Your task to perform on an android device: see tabs open on other devices in the chrome app Image 0: 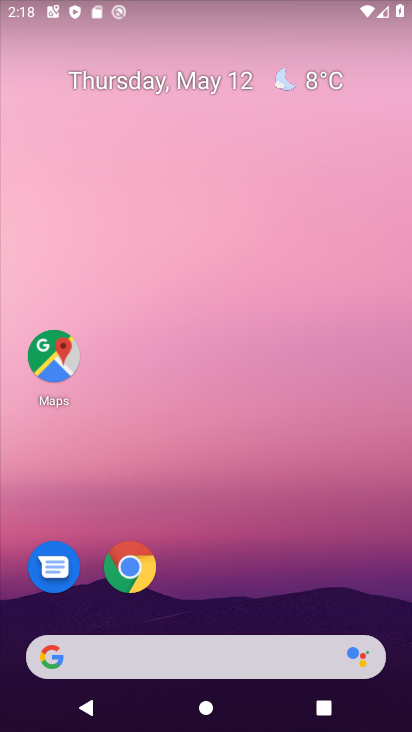
Step 0: click (123, 567)
Your task to perform on an android device: see tabs open on other devices in the chrome app Image 1: 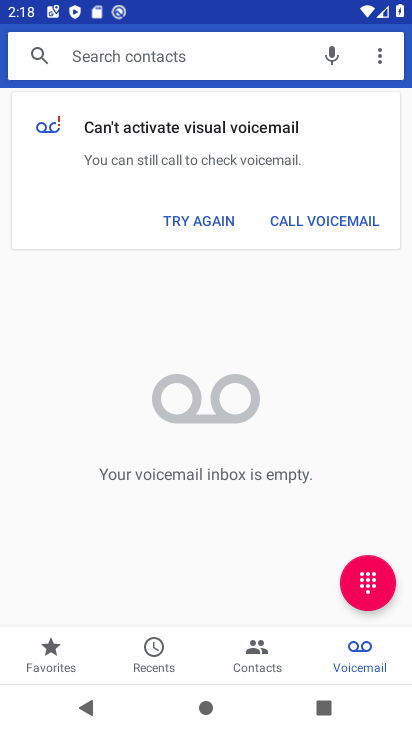
Step 1: press home button
Your task to perform on an android device: see tabs open on other devices in the chrome app Image 2: 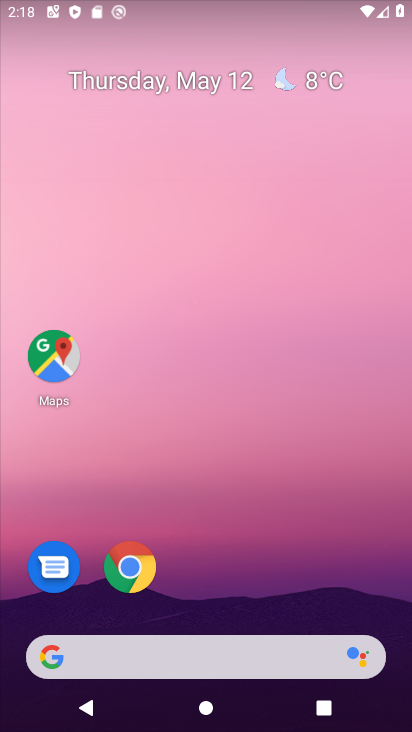
Step 2: drag from (199, 623) to (252, 77)
Your task to perform on an android device: see tabs open on other devices in the chrome app Image 3: 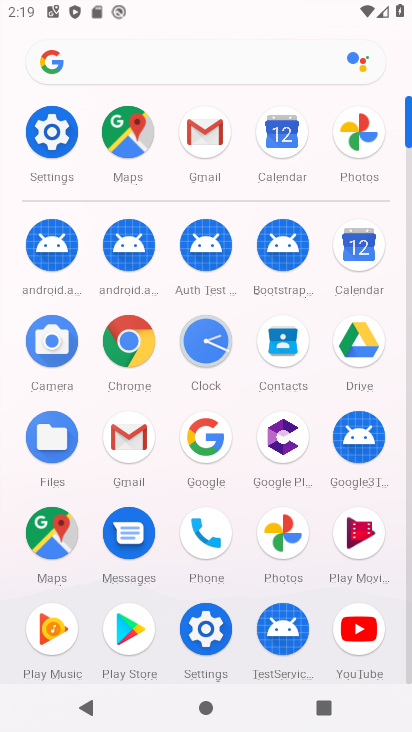
Step 3: click (131, 339)
Your task to perform on an android device: see tabs open on other devices in the chrome app Image 4: 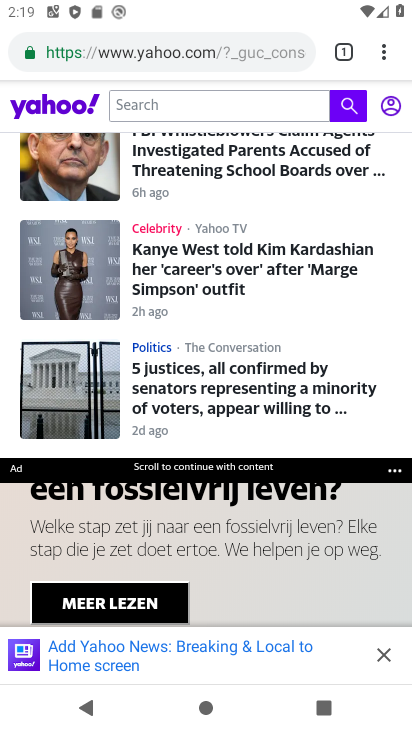
Step 4: click (389, 53)
Your task to perform on an android device: see tabs open on other devices in the chrome app Image 5: 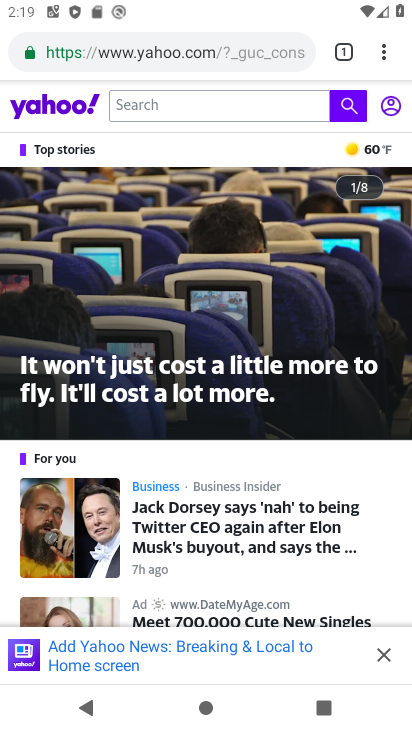
Step 5: click (377, 48)
Your task to perform on an android device: see tabs open on other devices in the chrome app Image 6: 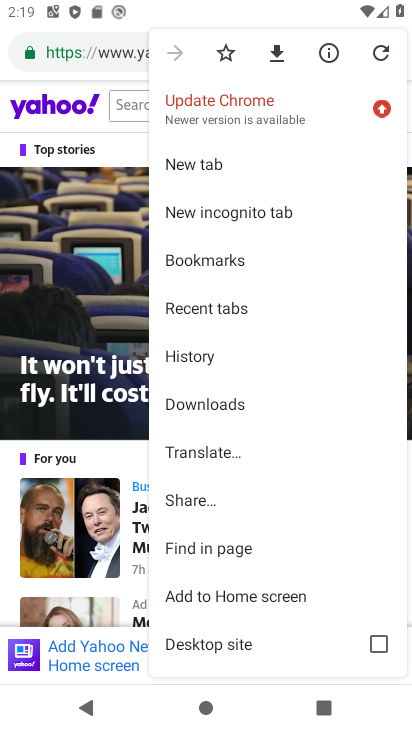
Step 6: click (235, 309)
Your task to perform on an android device: see tabs open on other devices in the chrome app Image 7: 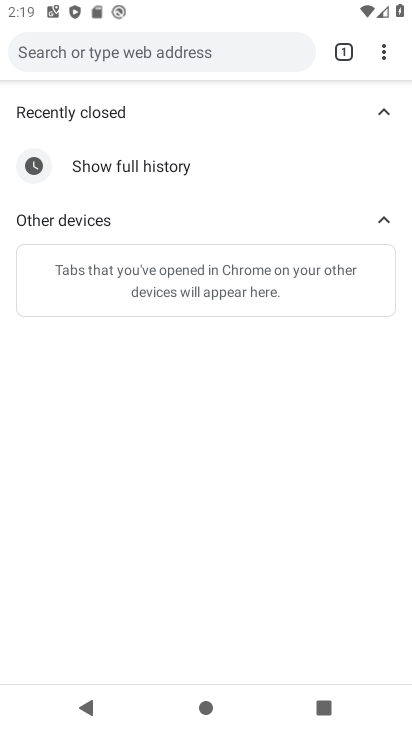
Step 7: task complete